Your task to perform on an android device: Show me productivity apps on the Play Store Image 0: 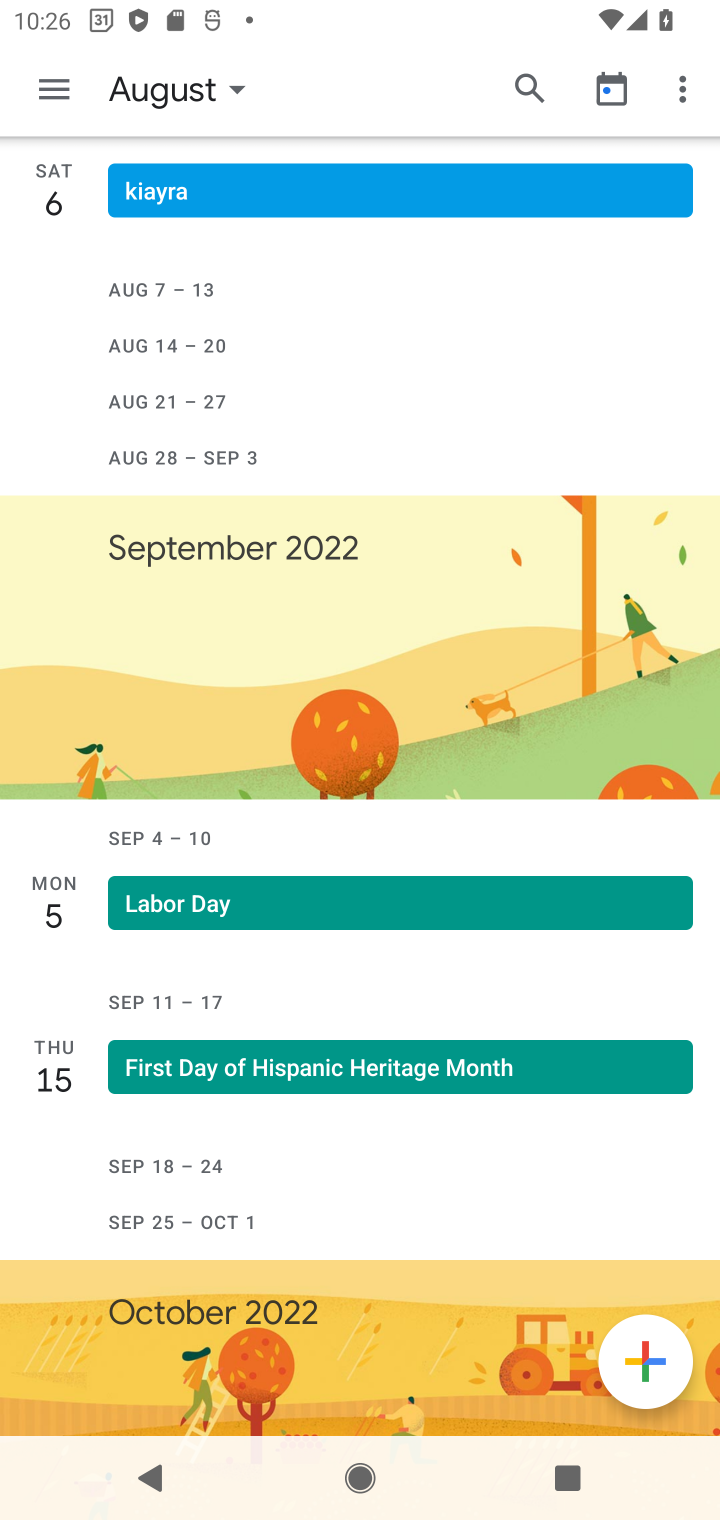
Step 0: press home button
Your task to perform on an android device: Show me productivity apps on the Play Store Image 1: 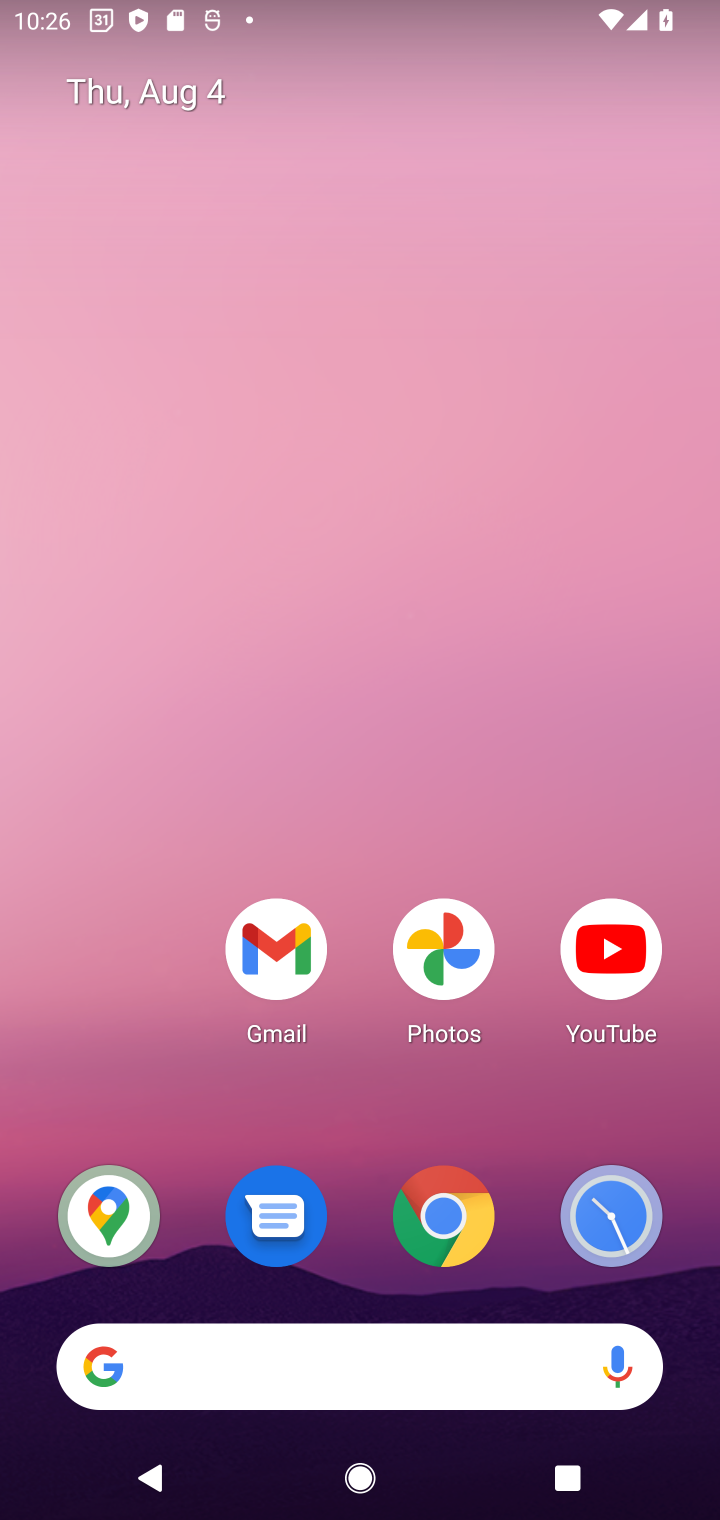
Step 1: drag from (285, 1394) to (367, 260)
Your task to perform on an android device: Show me productivity apps on the Play Store Image 2: 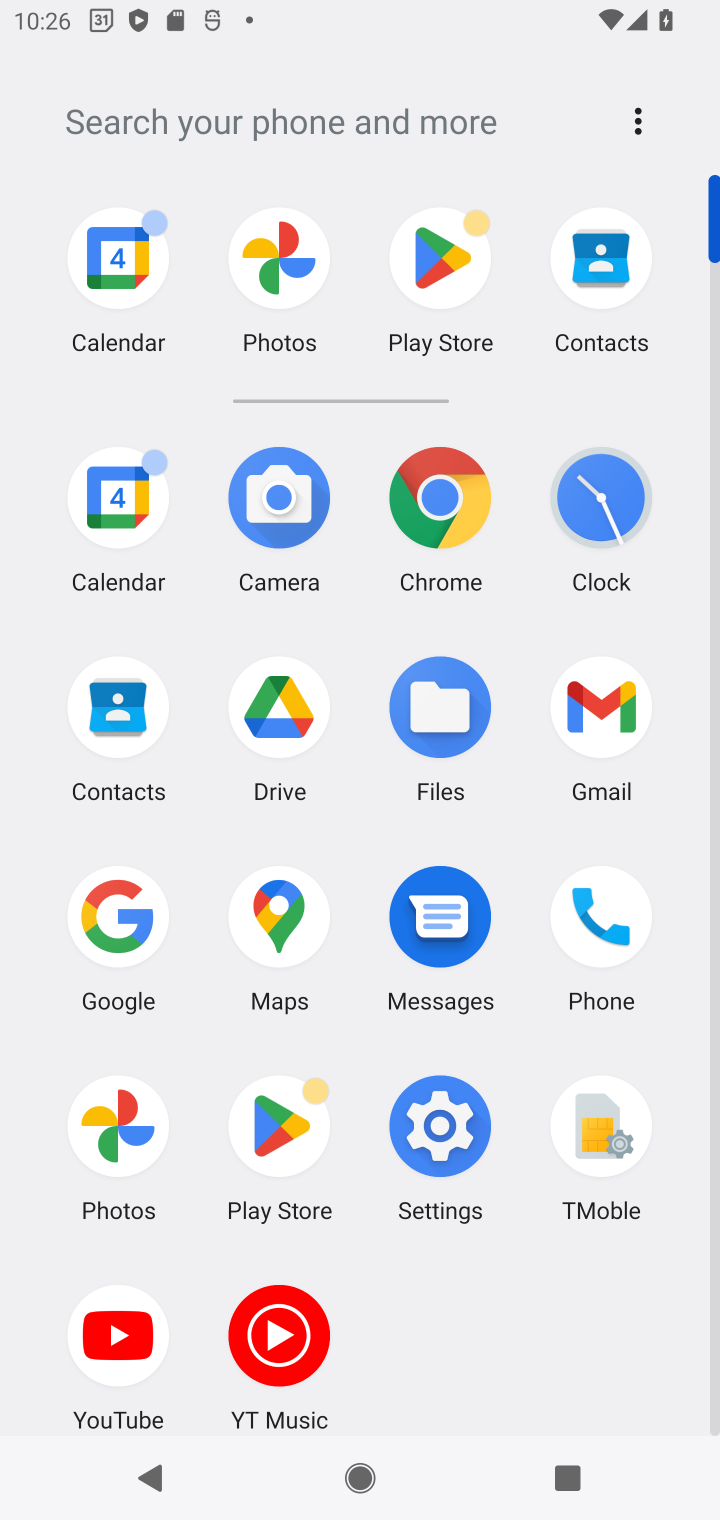
Step 2: click (444, 262)
Your task to perform on an android device: Show me productivity apps on the Play Store Image 3: 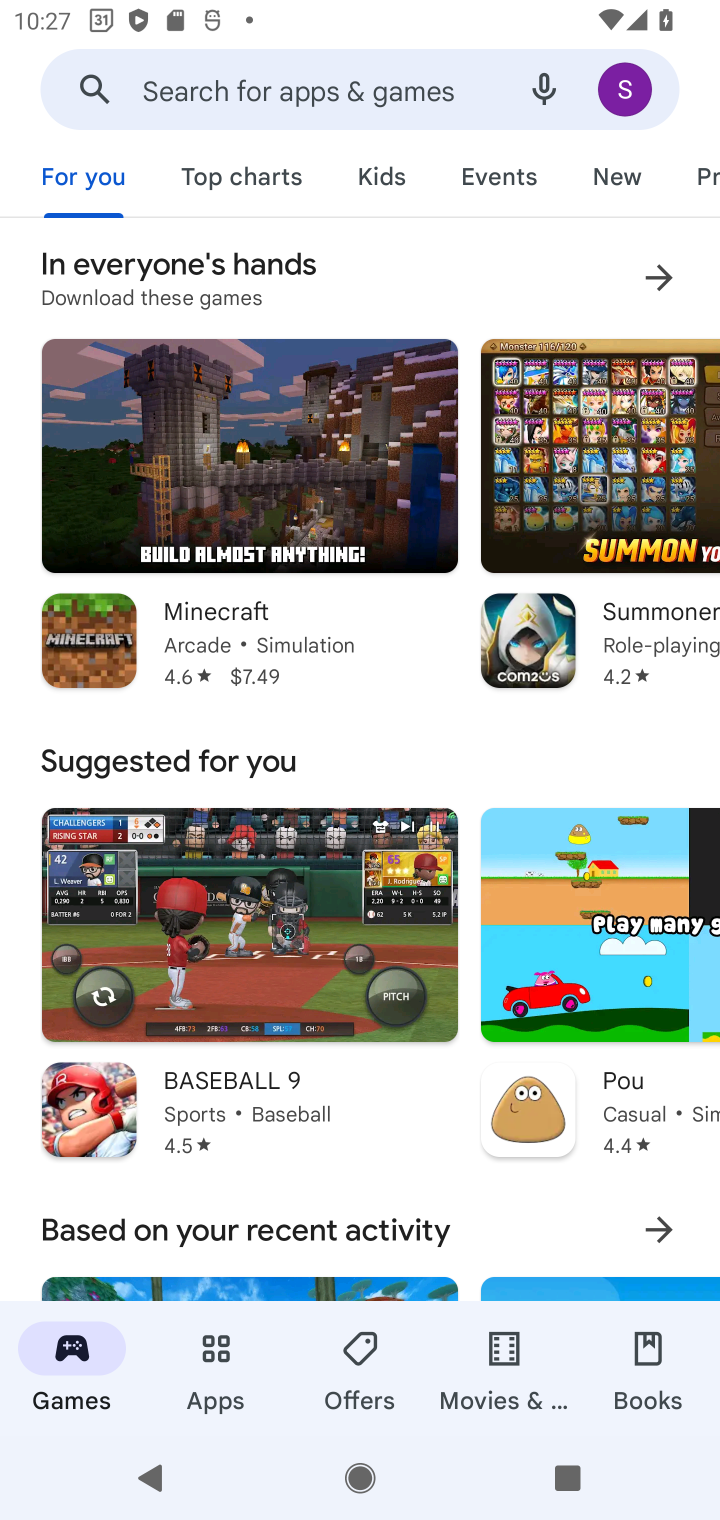
Step 3: click (221, 1354)
Your task to perform on an android device: Show me productivity apps on the Play Store Image 4: 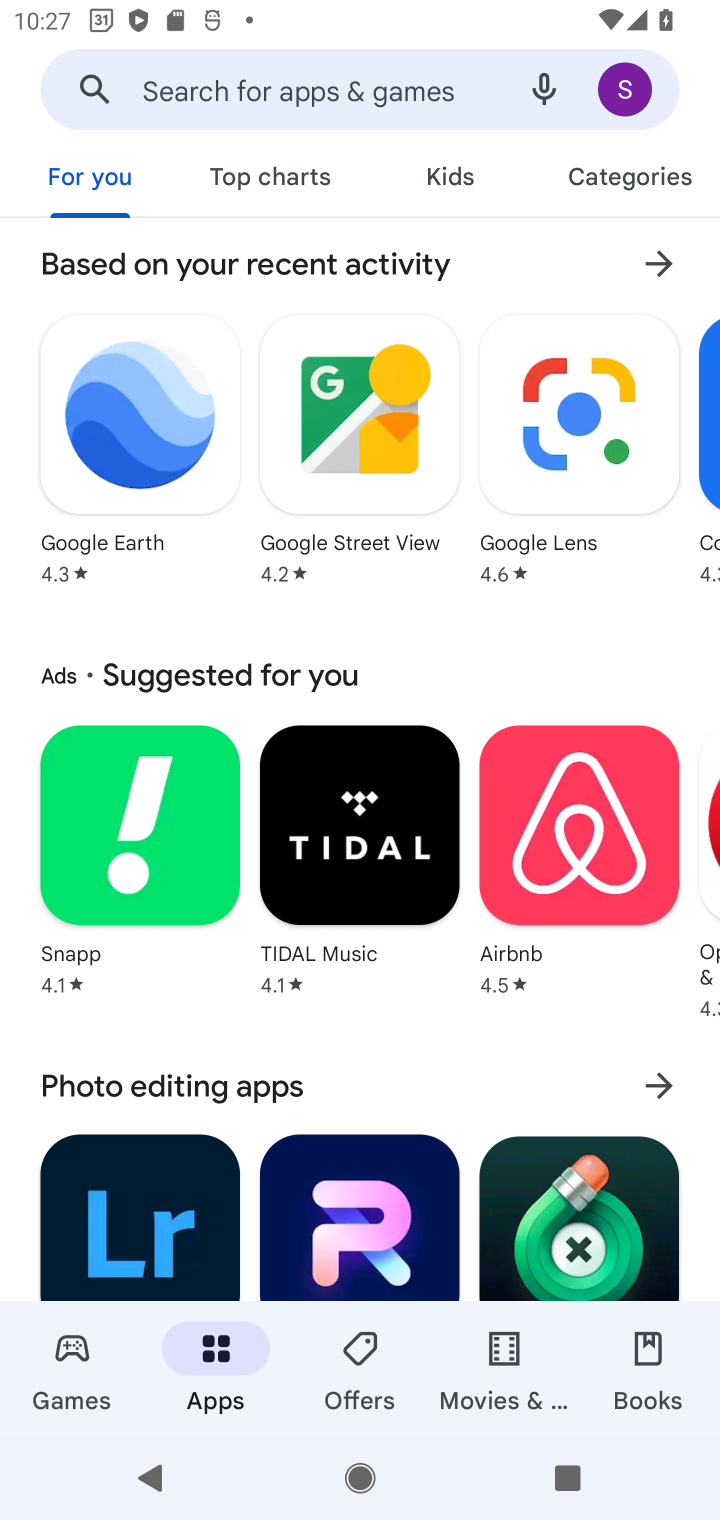
Step 4: click (640, 173)
Your task to perform on an android device: Show me productivity apps on the Play Store Image 5: 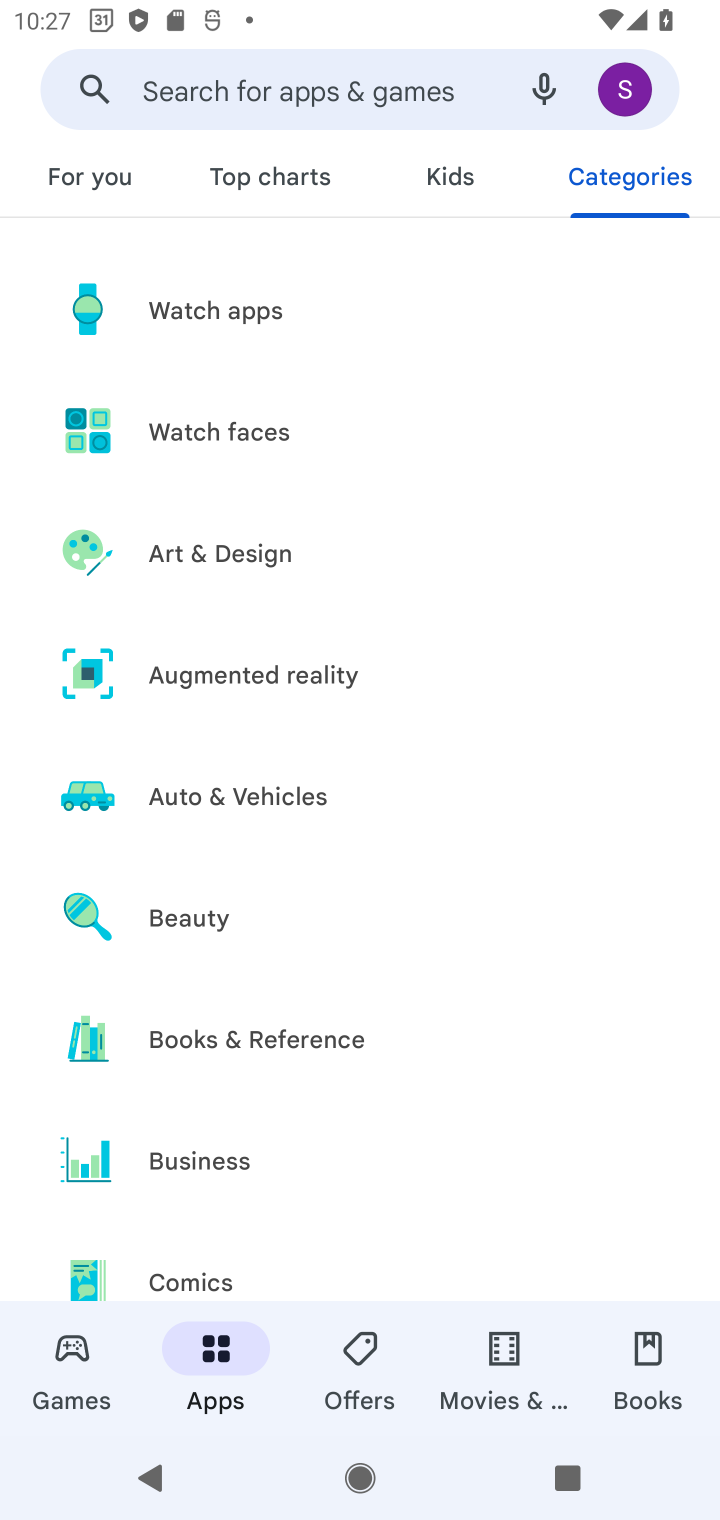
Step 5: drag from (193, 950) to (257, 646)
Your task to perform on an android device: Show me productivity apps on the Play Store Image 6: 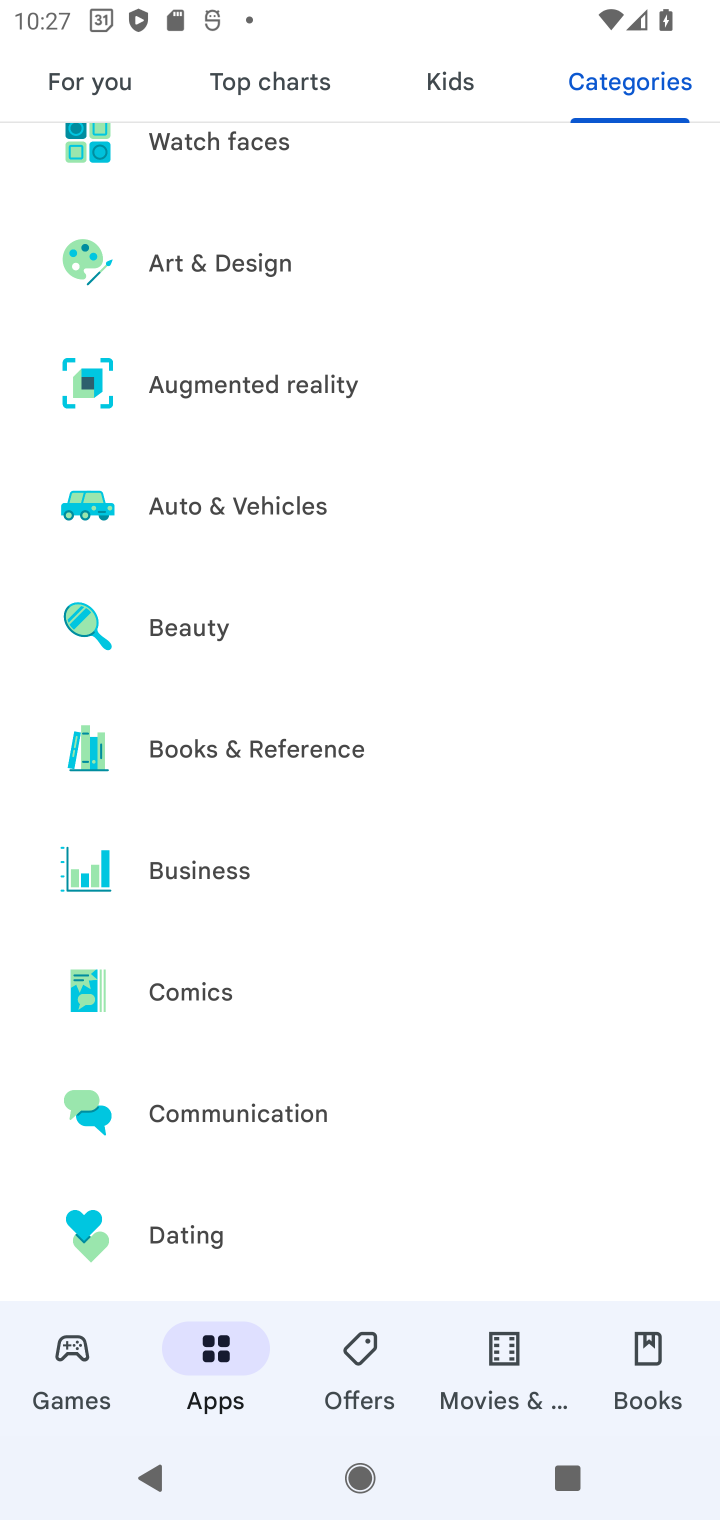
Step 6: drag from (190, 928) to (202, 641)
Your task to perform on an android device: Show me productivity apps on the Play Store Image 7: 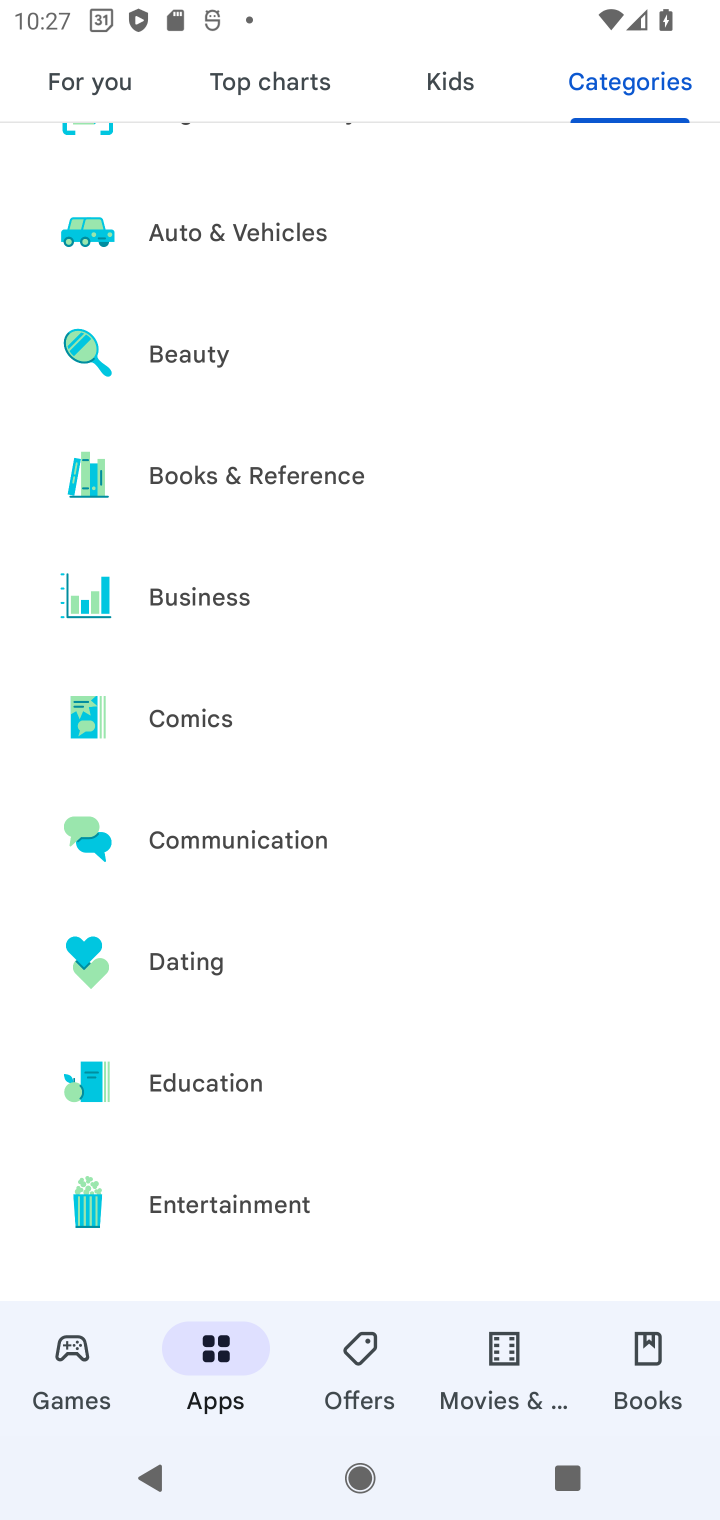
Step 7: drag from (327, 1071) to (423, 866)
Your task to perform on an android device: Show me productivity apps on the Play Store Image 8: 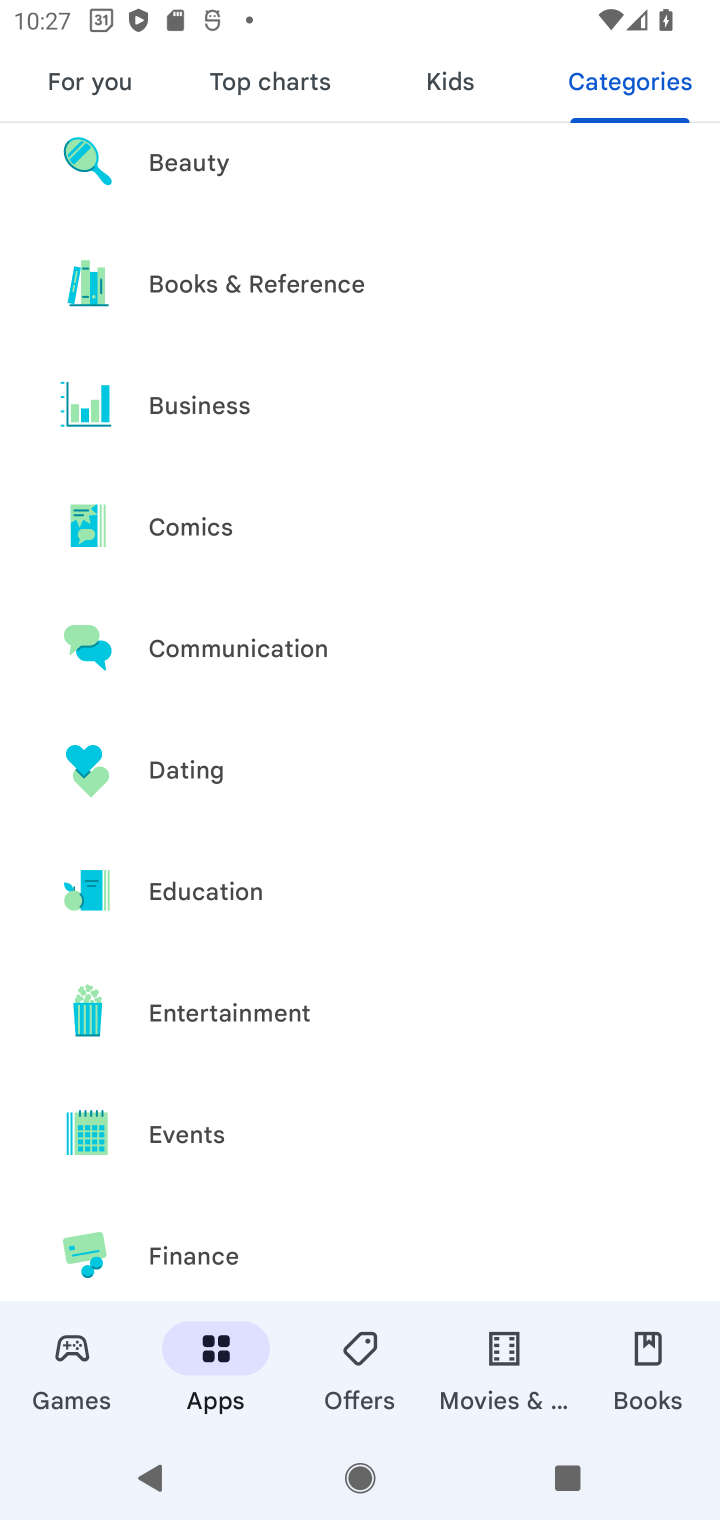
Step 8: drag from (280, 1172) to (408, 772)
Your task to perform on an android device: Show me productivity apps on the Play Store Image 9: 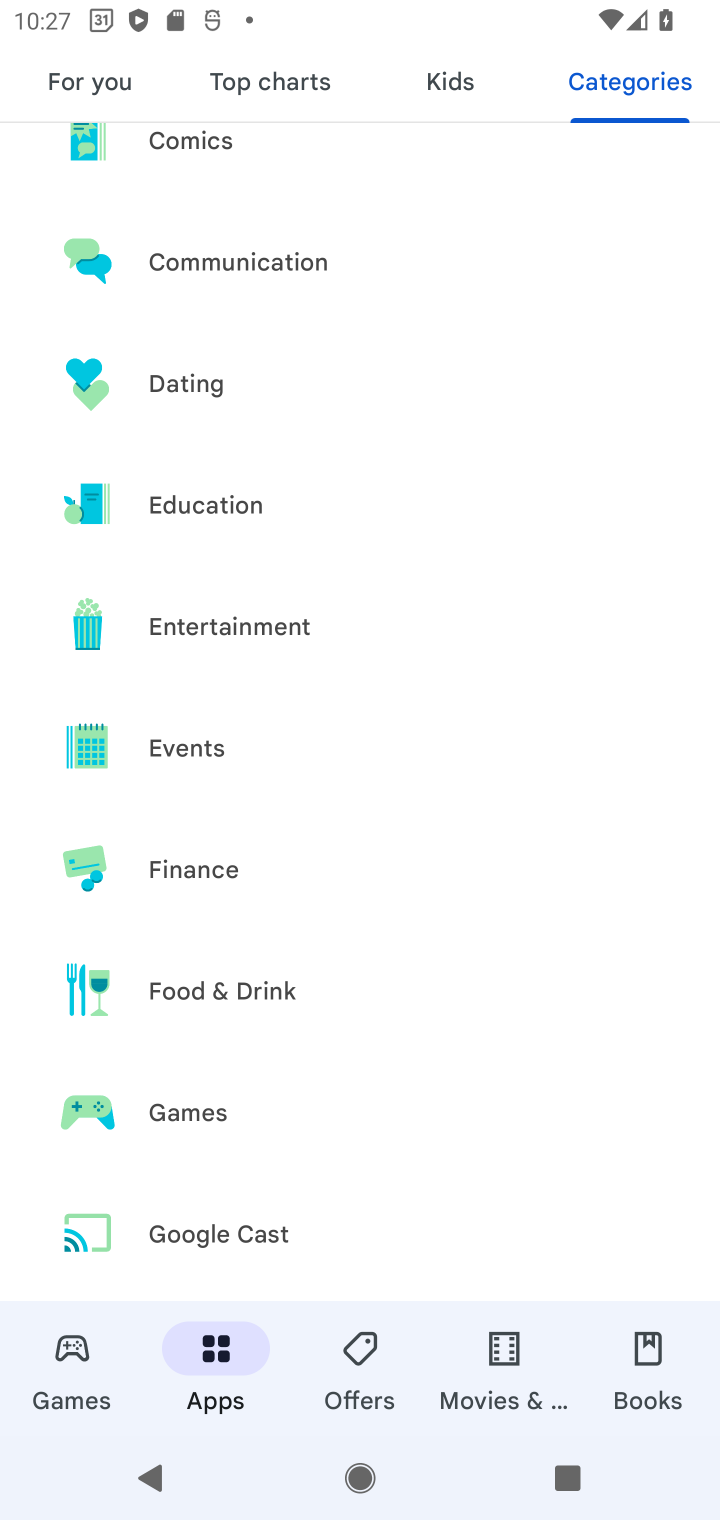
Step 9: drag from (314, 1053) to (387, 780)
Your task to perform on an android device: Show me productivity apps on the Play Store Image 10: 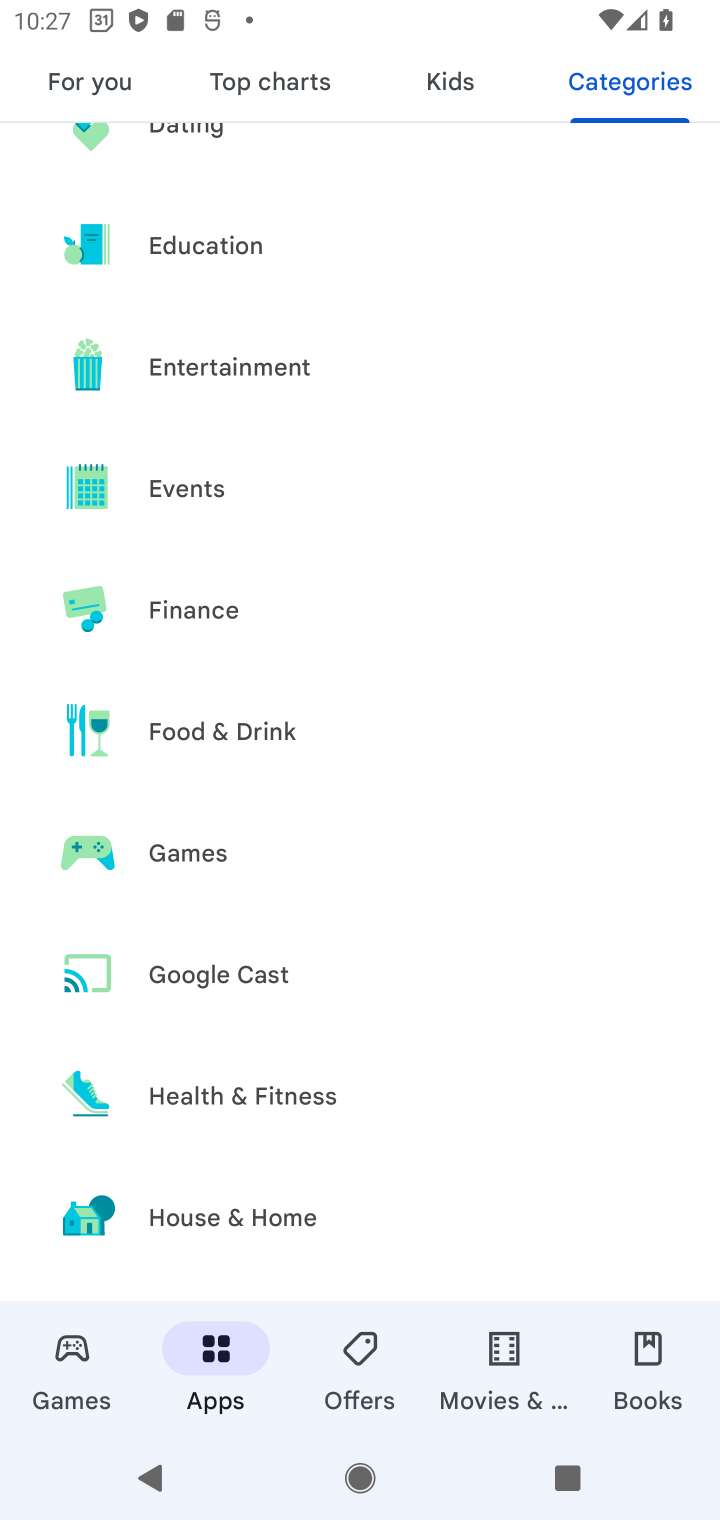
Step 10: drag from (204, 1143) to (355, 926)
Your task to perform on an android device: Show me productivity apps on the Play Store Image 11: 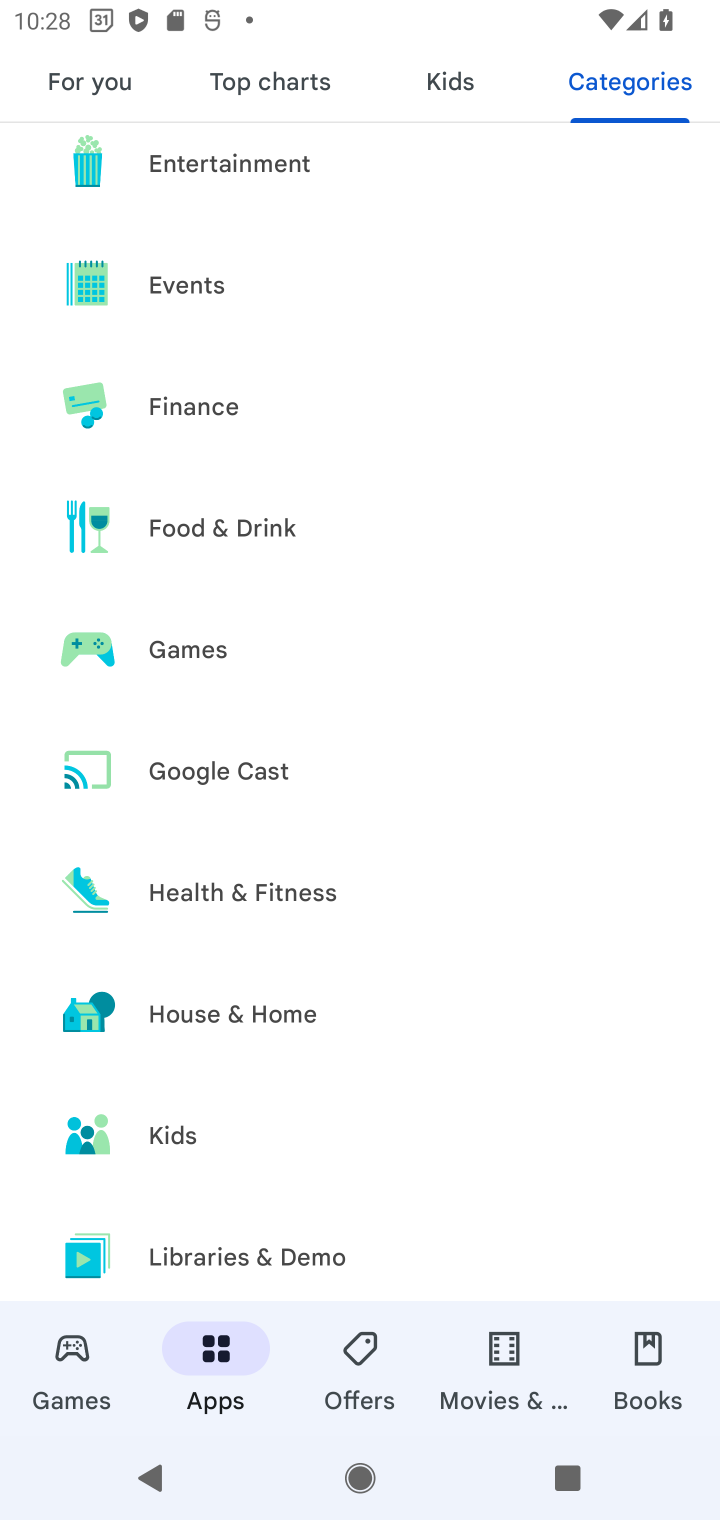
Step 11: drag from (201, 1089) to (295, 802)
Your task to perform on an android device: Show me productivity apps on the Play Store Image 12: 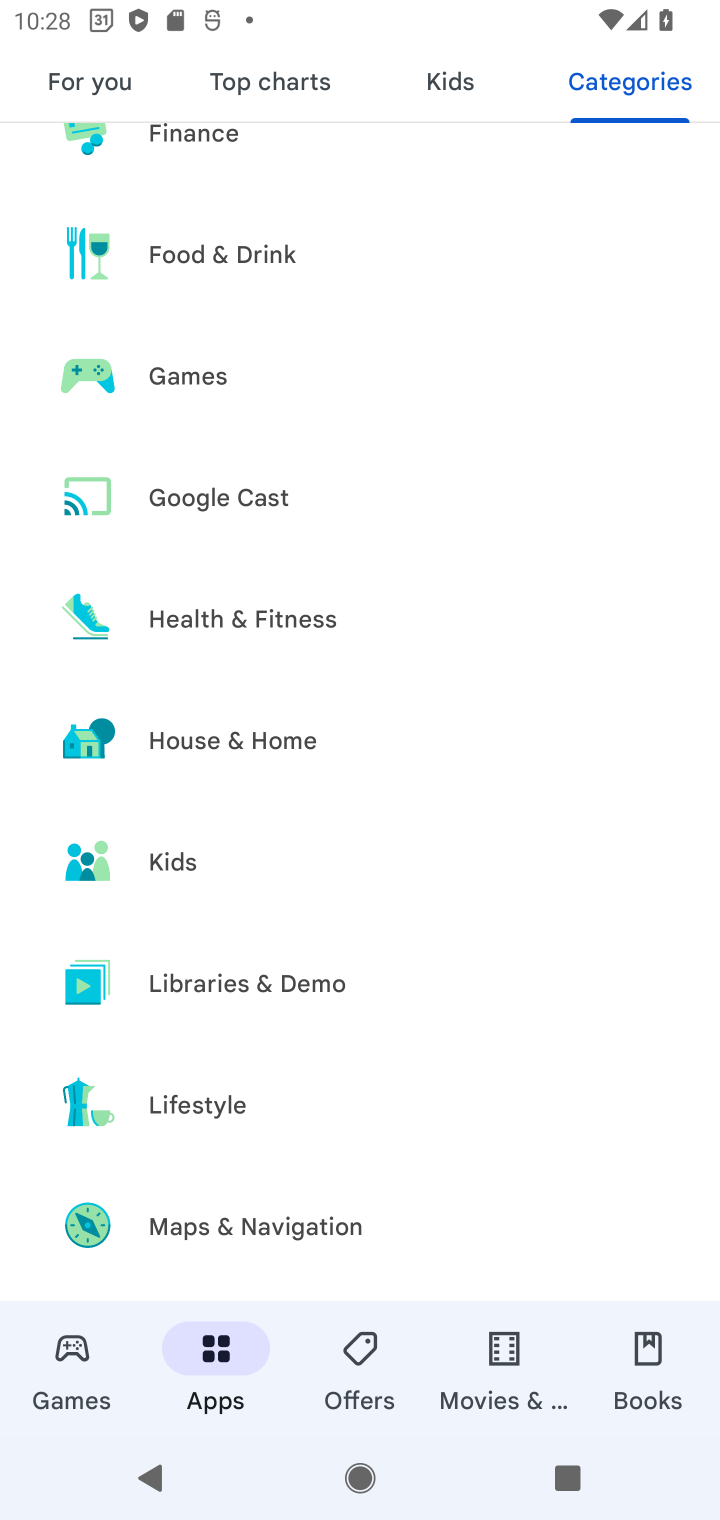
Step 12: drag from (228, 1081) to (306, 895)
Your task to perform on an android device: Show me productivity apps on the Play Store Image 13: 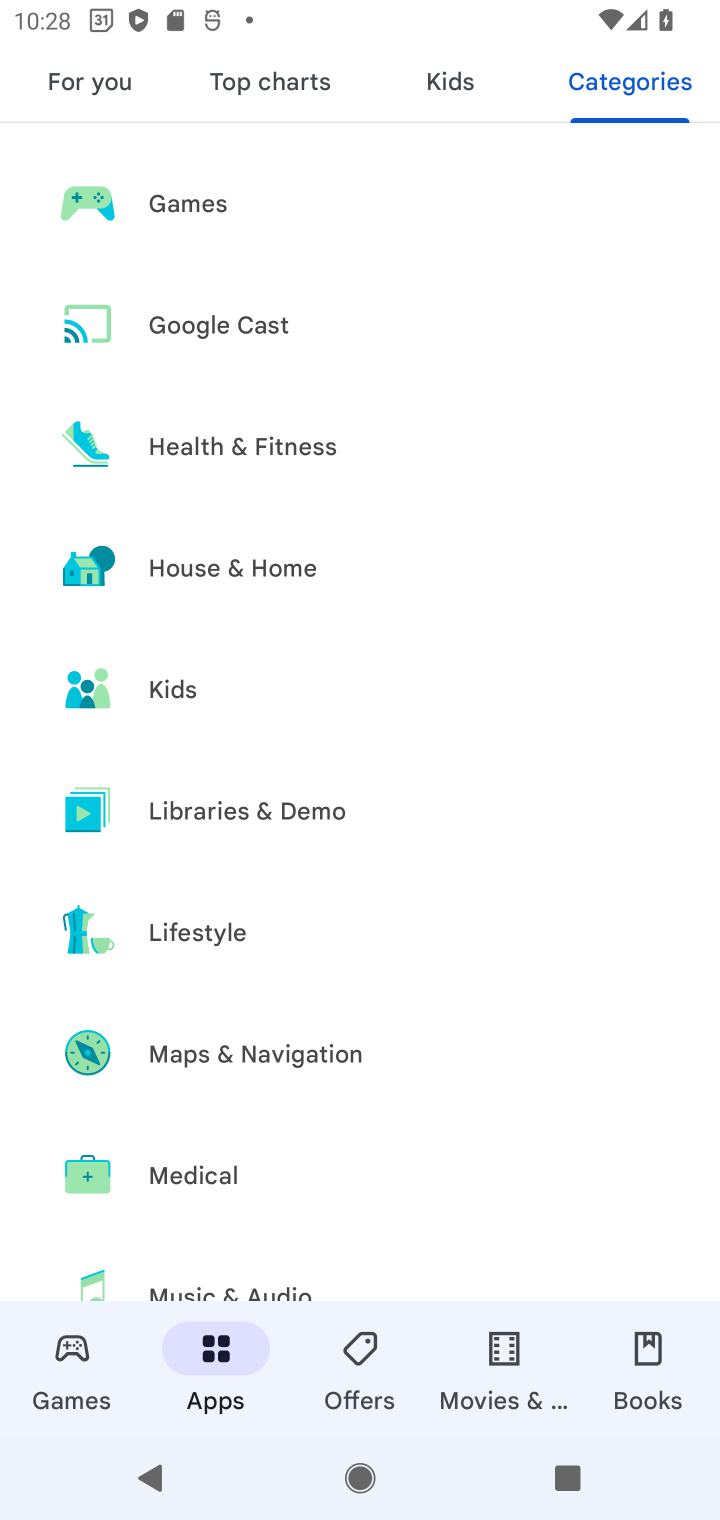
Step 13: drag from (178, 1127) to (311, 895)
Your task to perform on an android device: Show me productivity apps on the Play Store Image 14: 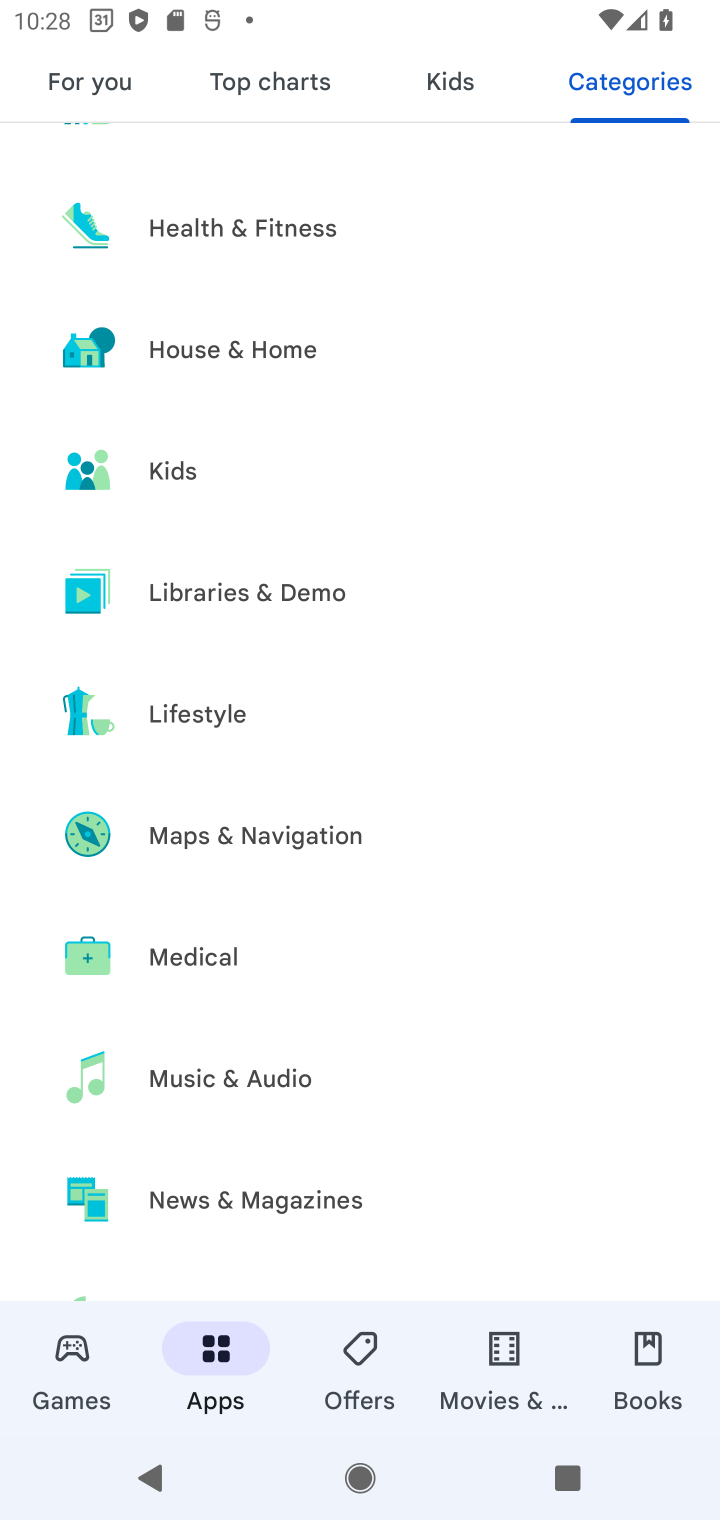
Step 14: drag from (205, 1052) to (338, 859)
Your task to perform on an android device: Show me productivity apps on the Play Store Image 15: 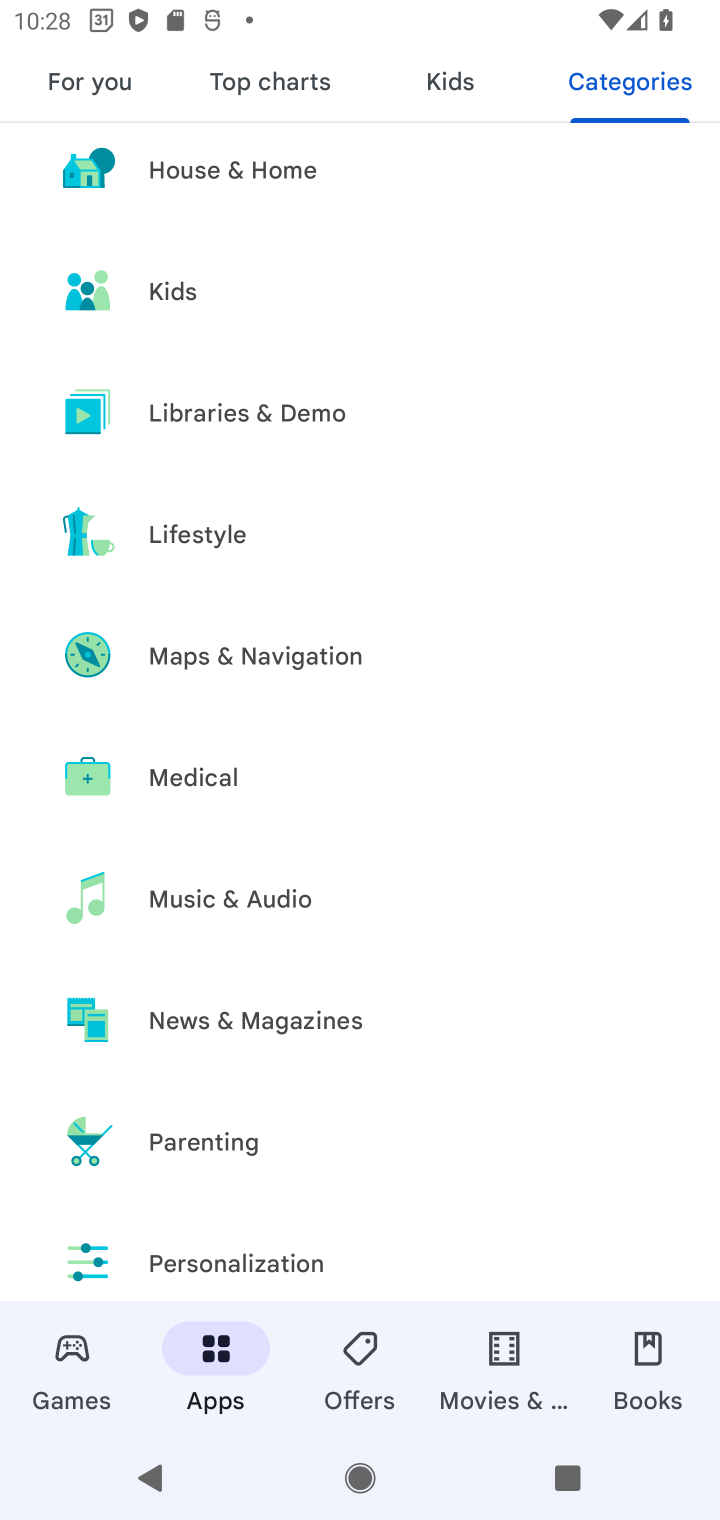
Step 15: drag from (187, 1176) to (377, 916)
Your task to perform on an android device: Show me productivity apps on the Play Store Image 16: 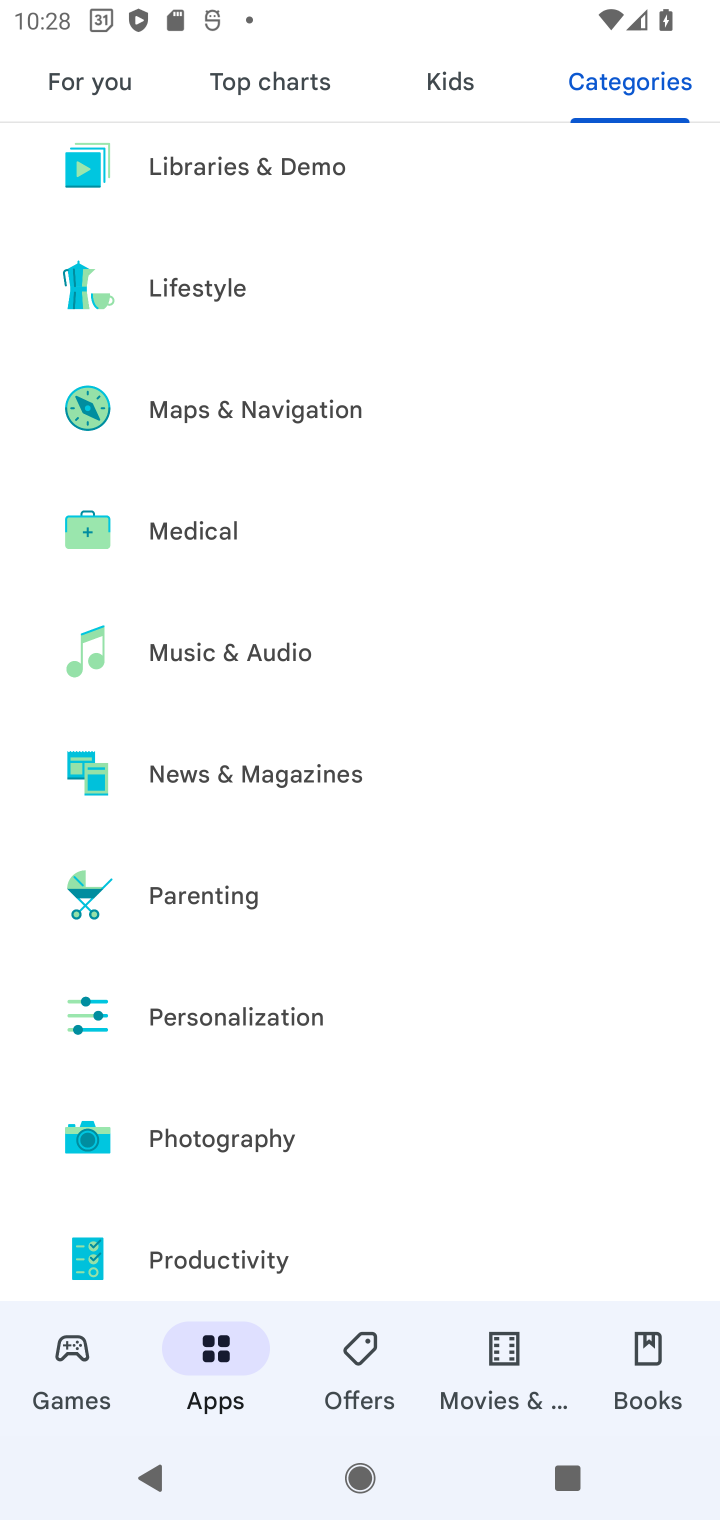
Step 16: drag from (207, 1199) to (316, 997)
Your task to perform on an android device: Show me productivity apps on the Play Store Image 17: 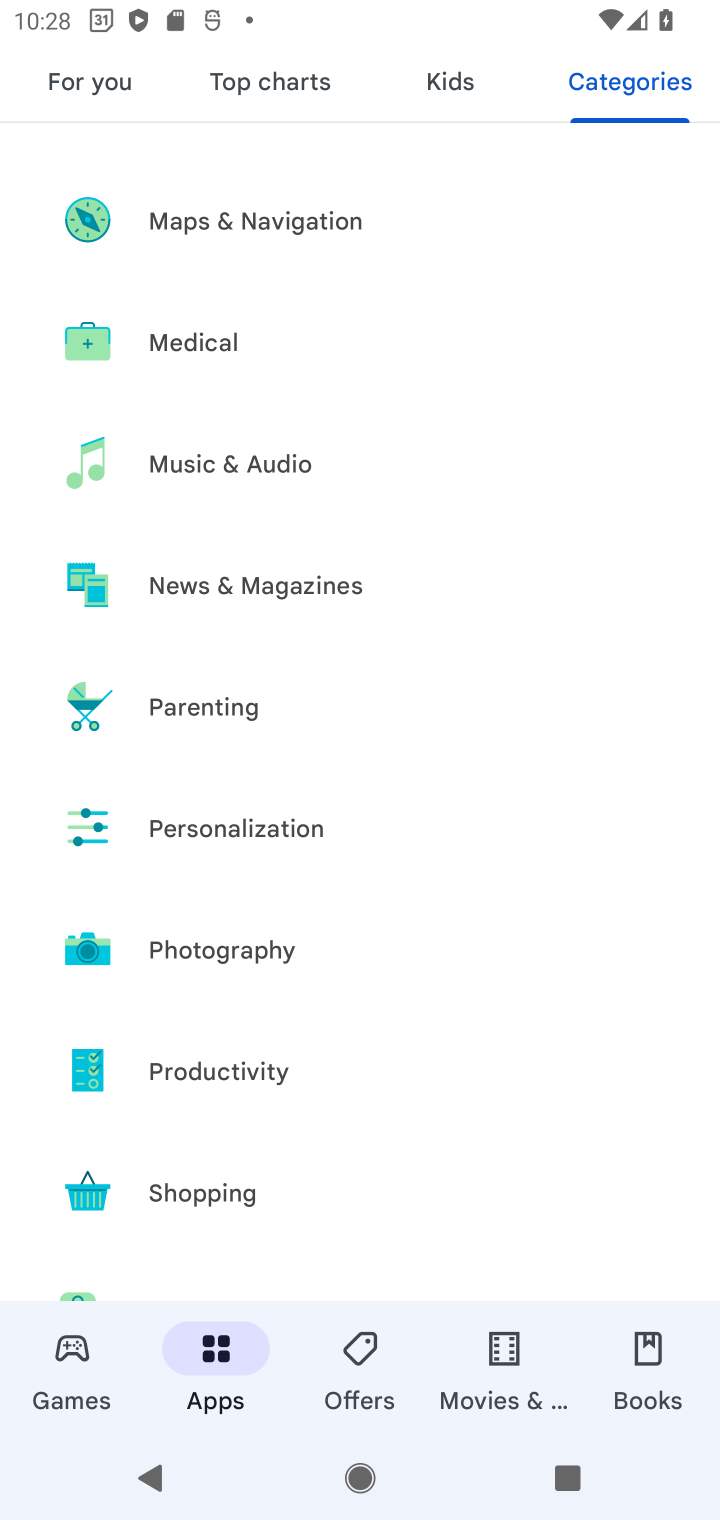
Step 17: click (267, 1067)
Your task to perform on an android device: Show me productivity apps on the Play Store Image 18: 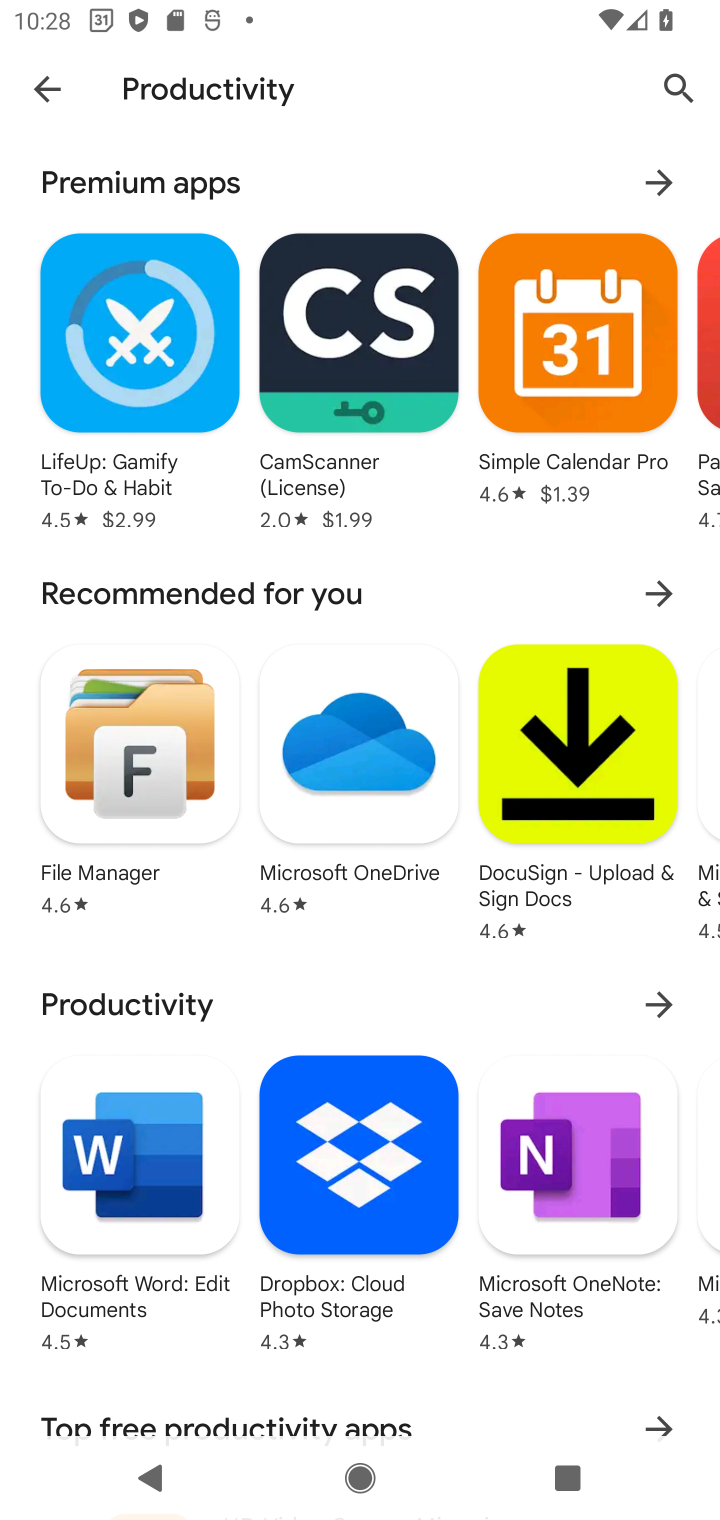
Step 18: task complete